Your task to perform on an android device: toggle show notifications on the lock screen Image 0: 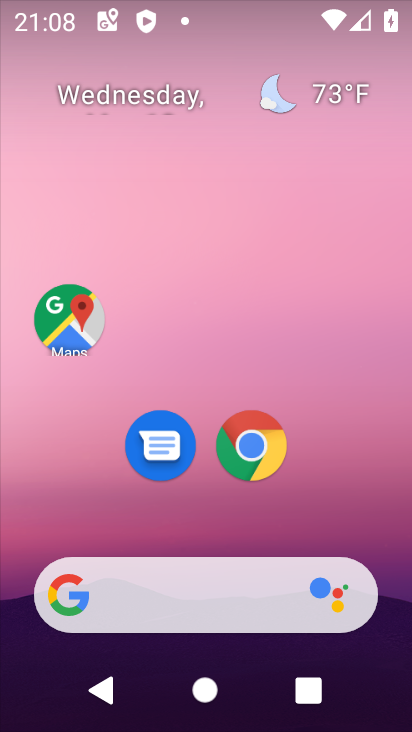
Step 0: drag from (311, 466) to (312, 200)
Your task to perform on an android device: toggle show notifications on the lock screen Image 1: 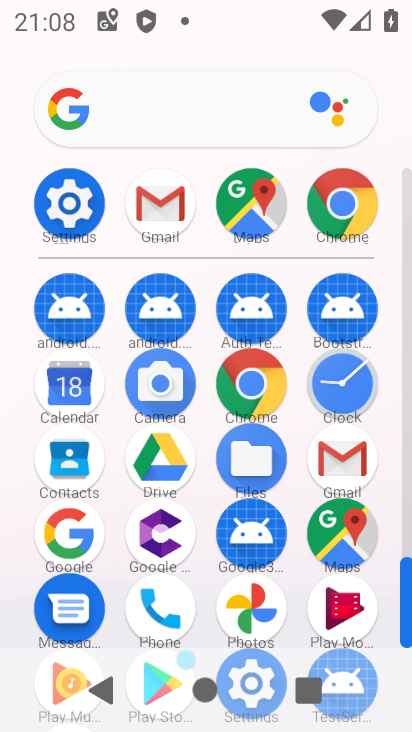
Step 1: click (47, 196)
Your task to perform on an android device: toggle show notifications on the lock screen Image 2: 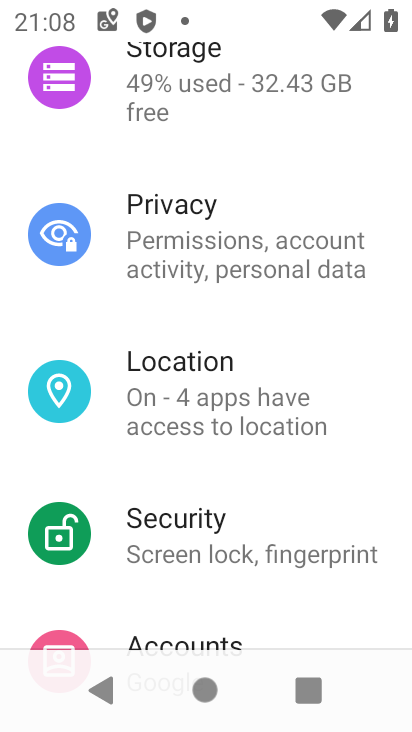
Step 2: drag from (210, 157) to (194, 608)
Your task to perform on an android device: toggle show notifications on the lock screen Image 3: 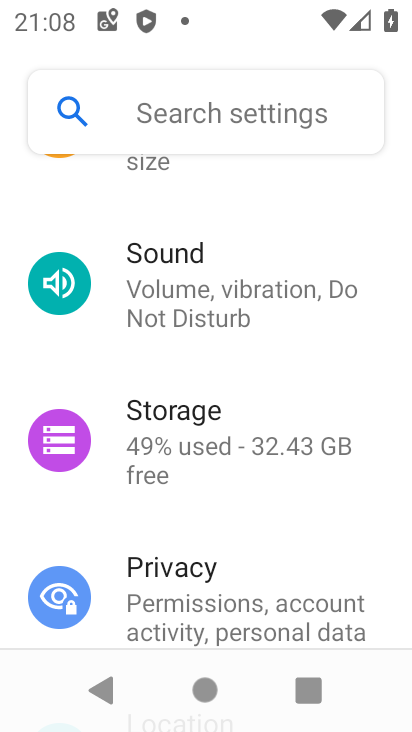
Step 3: drag from (196, 211) to (197, 541)
Your task to perform on an android device: toggle show notifications on the lock screen Image 4: 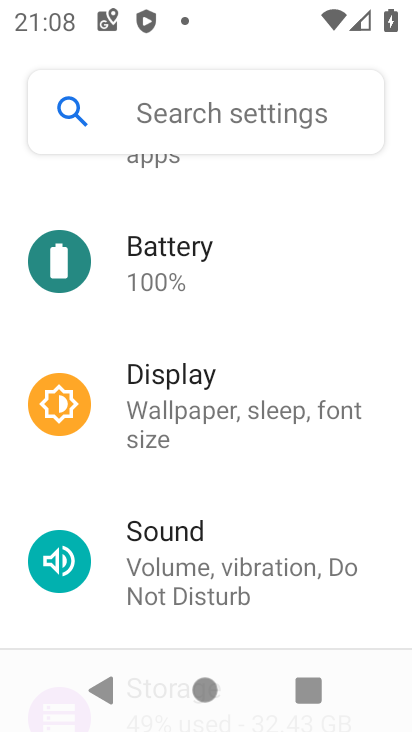
Step 4: drag from (195, 190) to (200, 542)
Your task to perform on an android device: toggle show notifications on the lock screen Image 5: 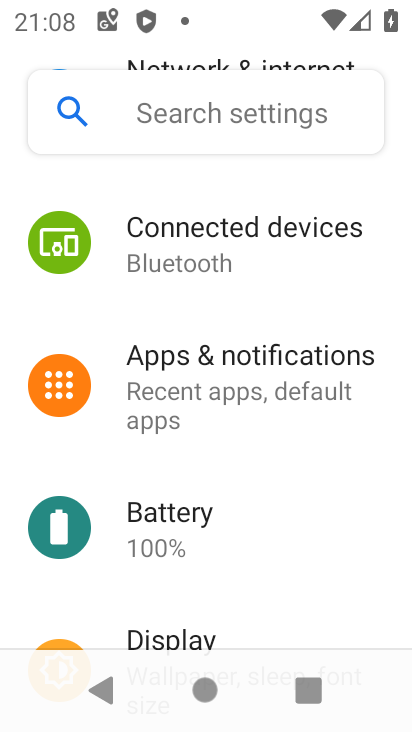
Step 5: drag from (182, 247) to (191, 519)
Your task to perform on an android device: toggle show notifications on the lock screen Image 6: 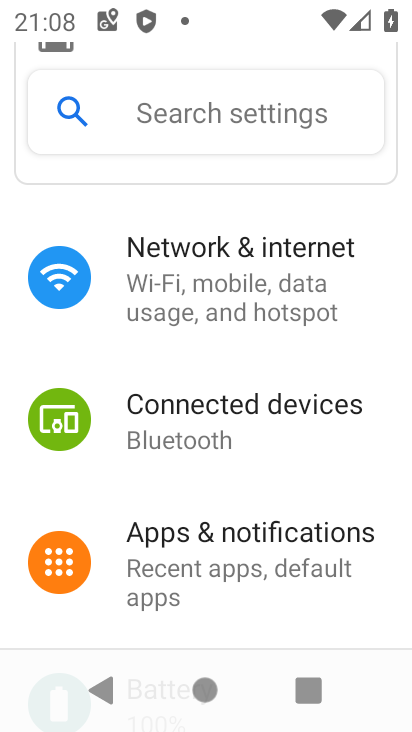
Step 6: click (172, 533)
Your task to perform on an android device: toggle show notifications on the lock screen Image 7: 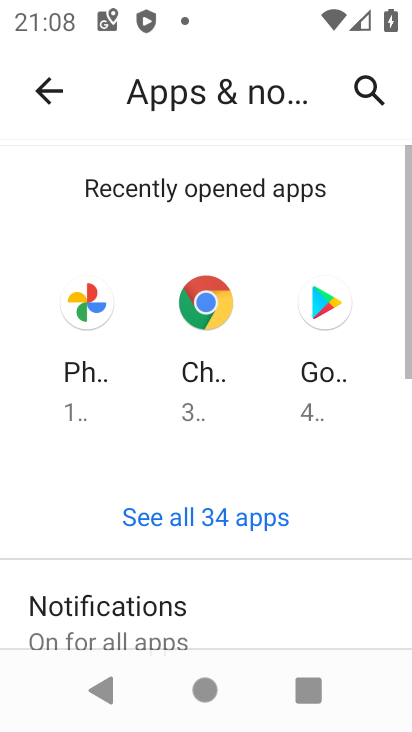
Step 7: drag from (216, 557) to (290, 175)
Your task to perform on an android device: toggle show notifications on the lock screen Image 8: 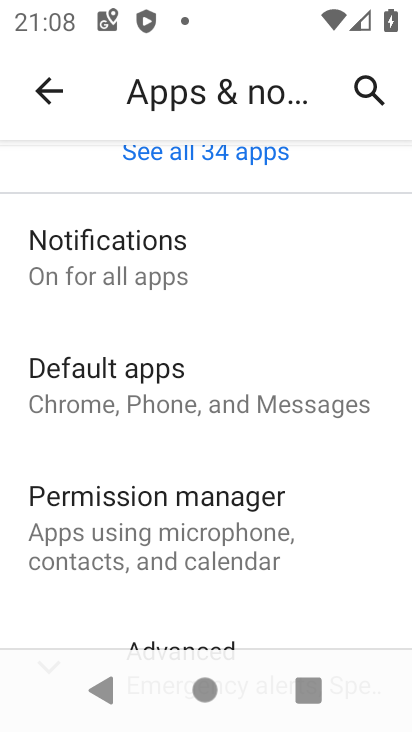
Step 8: click (144, 224)
Your task to perform on an android device: toggle show notifications on the lock screen Image 9: 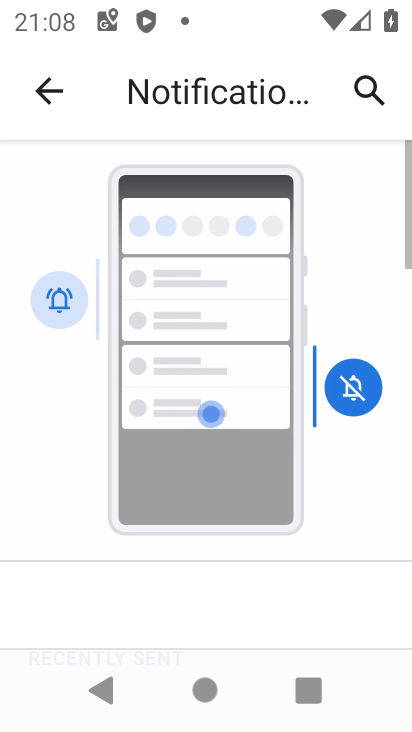
Step 9: task complete